Your task to perform on an android device: Open CNN.com Image 0: 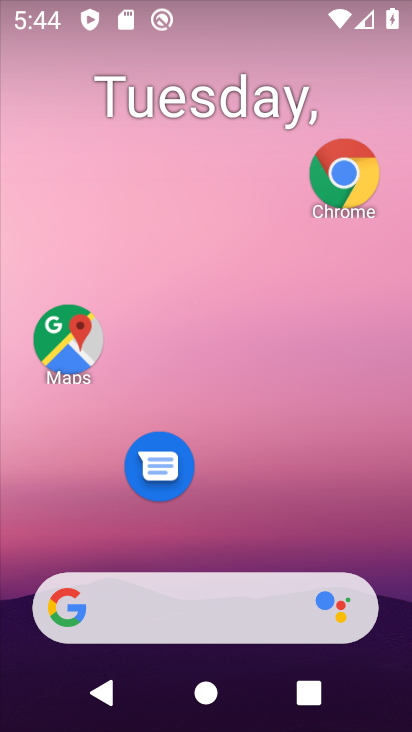
Step 0: click (326, 201)
Your task to perform on an android device: Open CNN.com Image 1: 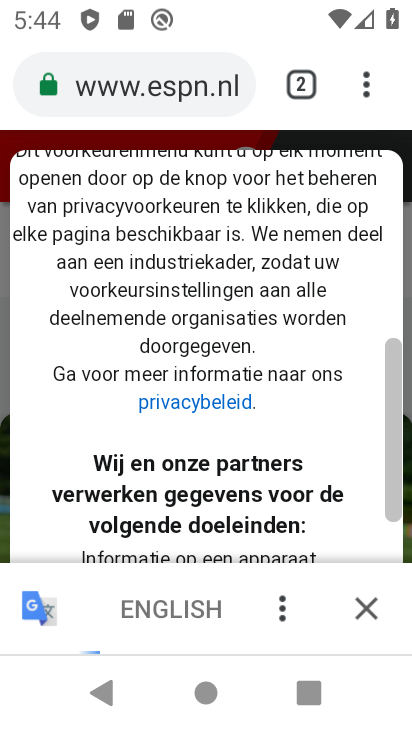
Step 1: click (153, 80)
Your task to perform on an android device: Open CNN.com Image 2: 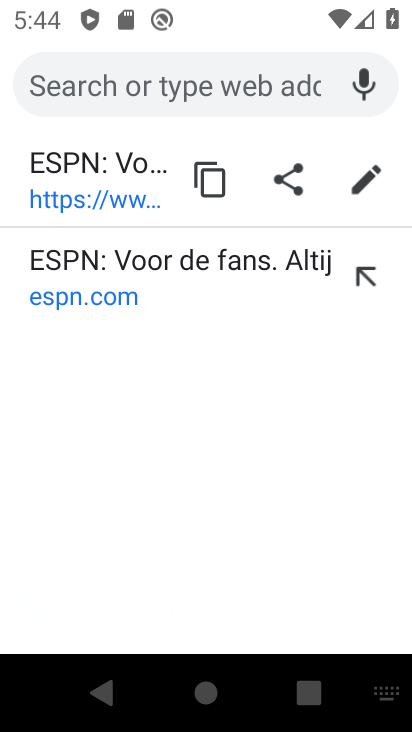
Step 2: type "CNN.com"
Your task to perform on an android device: Open CNN.com Image 3: 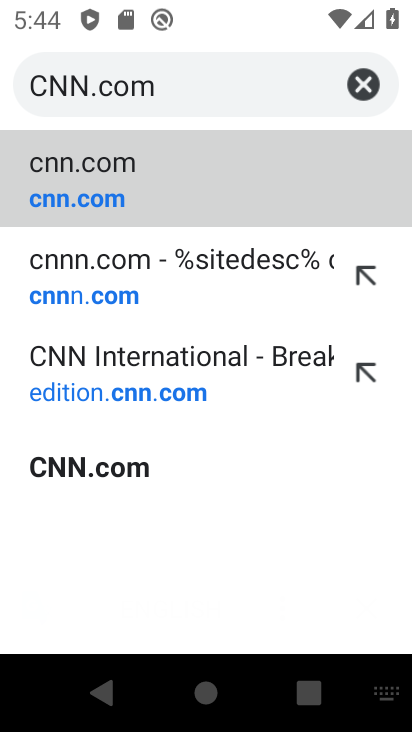
Step 3: click (258, 209)
Your task to perform on an android device: Open CNN.com Image 4: 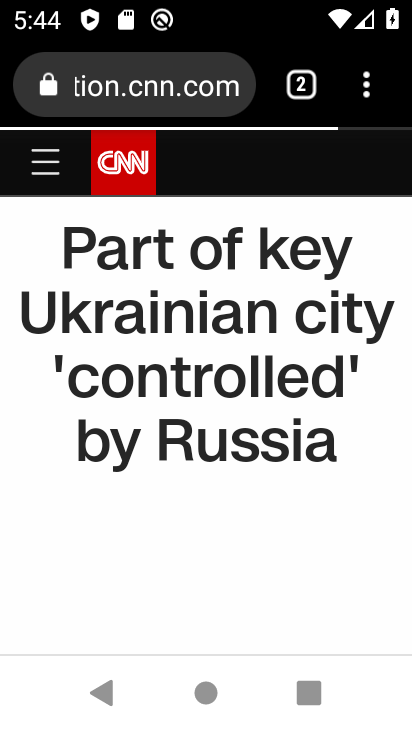
Step 4: task complete